Your task to perform on an android device: toggle data saver in the chrome app Image 0: 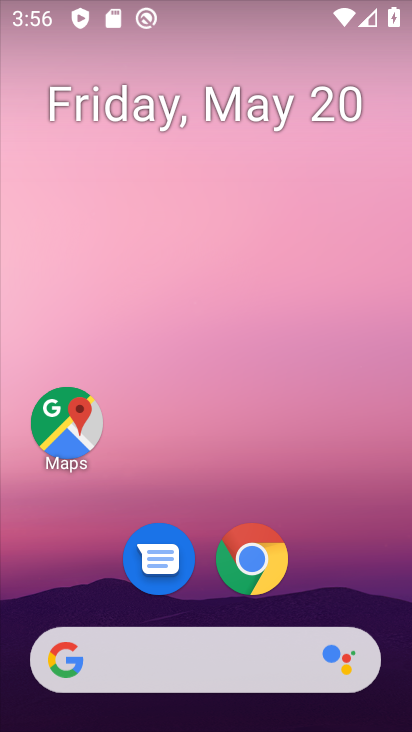
Step 0: drag from (225, 631) to (224, 131)
Your task to perform on an android device: toggle data saver in the chrome app Image 1: 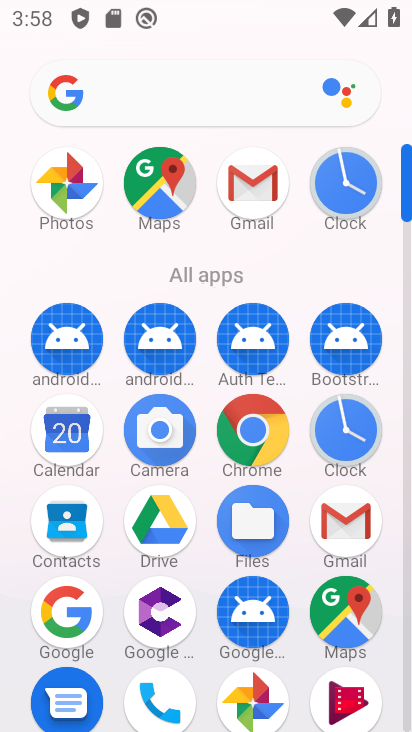
Step 1: drag from (221, 355) to (221, 303)
Your task to perform on an android device: toggle data saver in the chrome app Image 2: 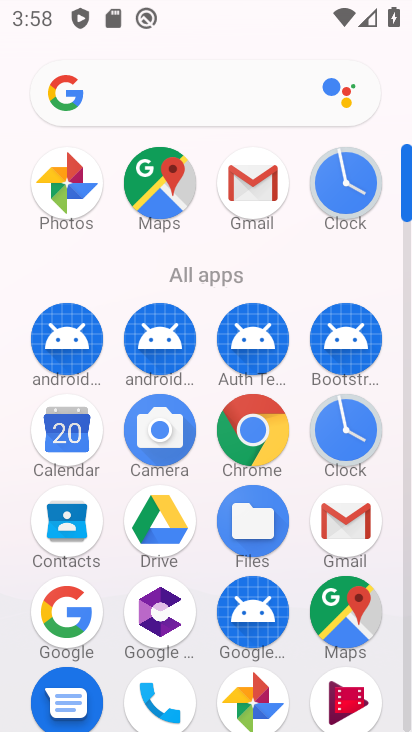
Step 2: click (244, 435)
Your task to perform on an android device: toggle data saver in the chrome app Image 3: 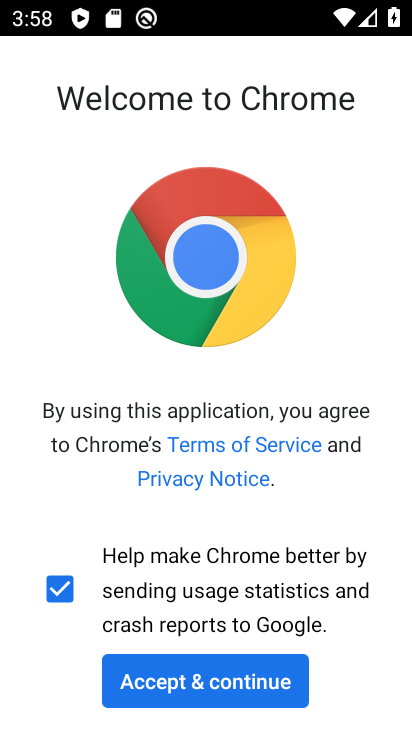
Step 3: click (238, 686)
Your task to perform on an android device: toggle data saver in the chrome app Image 4: 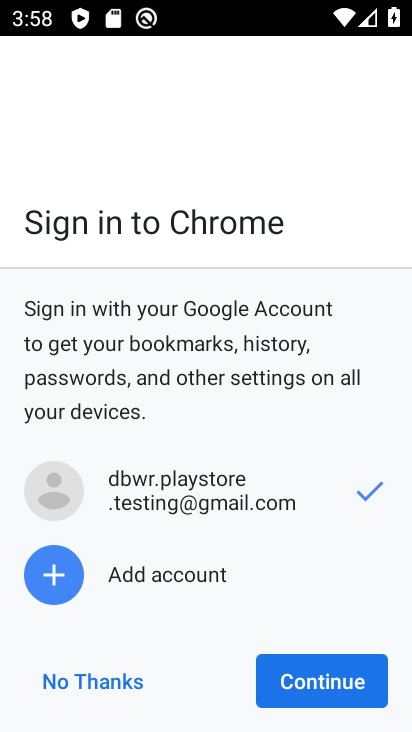
Step 4: click (288, 680)
Your task to perform on an android device: toggle data saver in the chrome app Image 5: 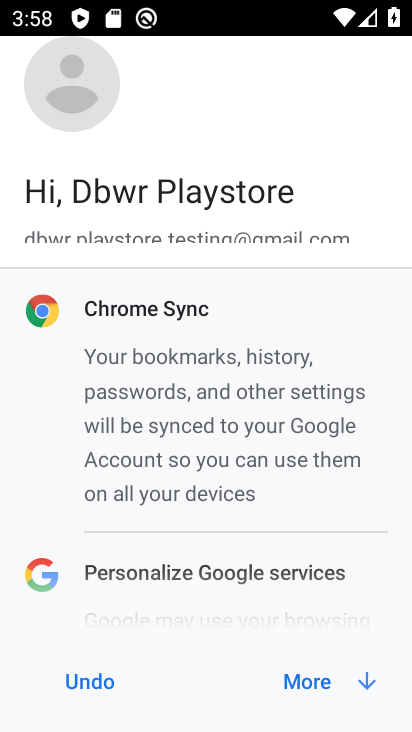
Step 5: click (288, 680)
Your task to perform on an android device: toggle data saver in the chrome app Image 6: 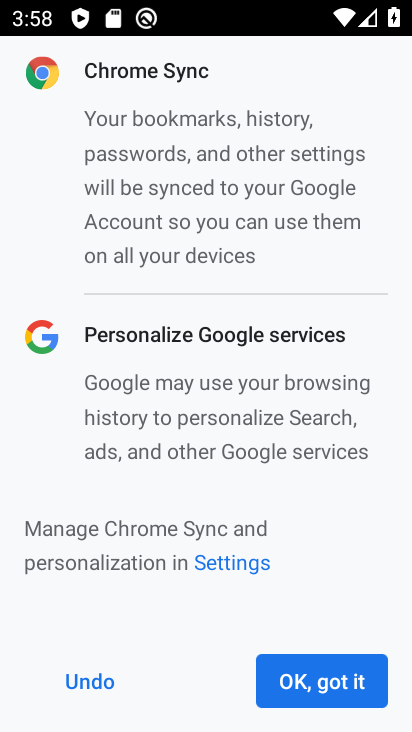
Step 6: click (319, 690)
Your task to perform on an android device: toggle data saver in the chrome app Image 7: 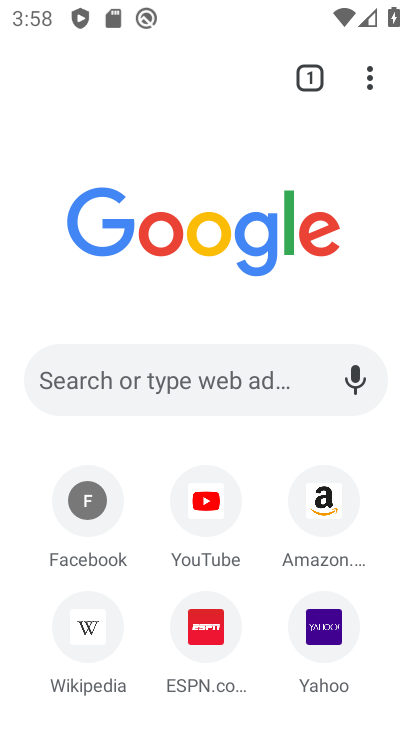
Step 7: click (369, 79)
Your task to perform on an android device: toggle data saver in the chrome app Image 8: 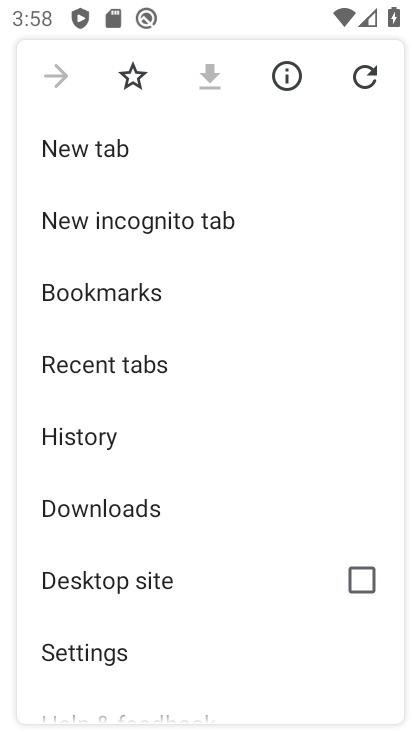
Step 8: drag from (173, 675) to (167, 351)
Your task to perform on an android device: toggle data saver in the chrome app Image 9: 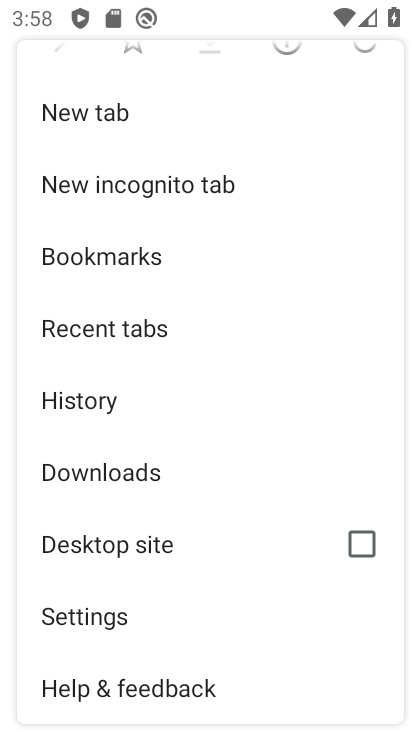
Step 9: click (101, 607)
Your task to perform on an android device: toggle data saver in the chrome app Image 10: 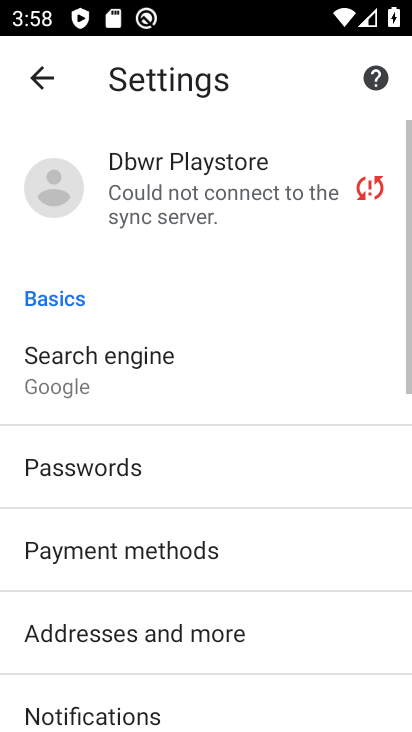
Step 10: drag from (129, 694) to (176, 287)
Your task to perform on an android device: toggle data saver in the chrome app Image 11: 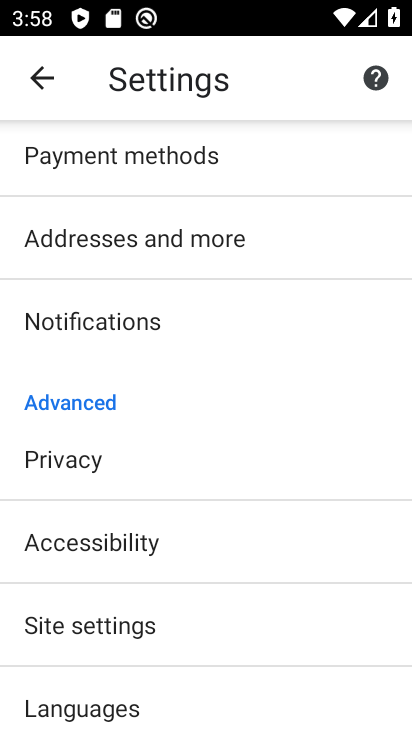
Step 11: drag from (115, 674) to (175, 314)
Your task to perform on an android device: toggle data saver in the chrome app Image 12: 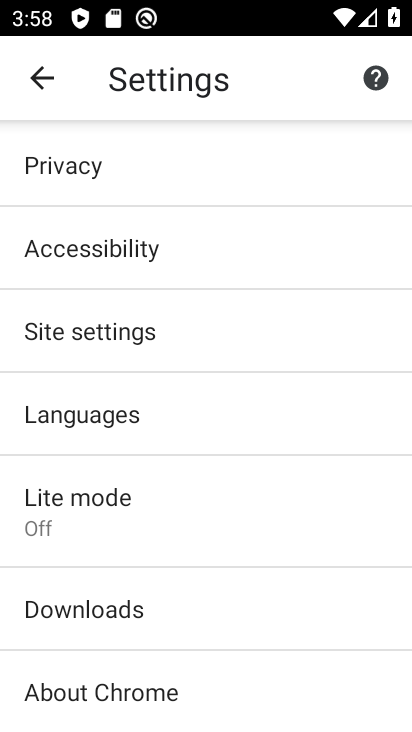
Step 12: click (94, 507)
Your task to perform on an android device: toggle data saver in the chrome app Image 13: 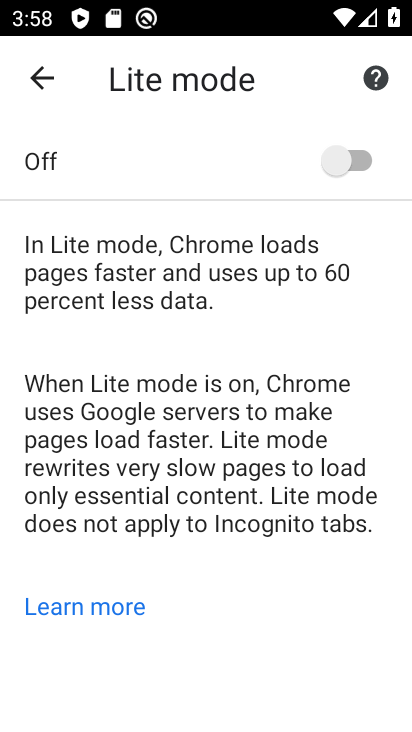
Step 13: click (361, 157)
Your task to perform on an android device: toggle data saver in the chrome app Image 14: 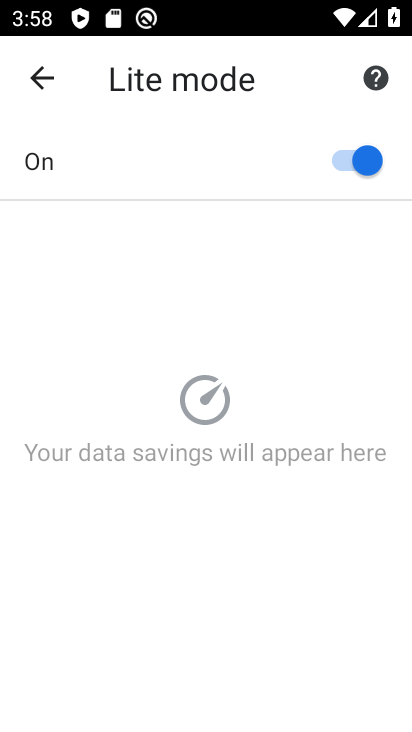
Step 14: task complete